Your task to perform on an android device: toggle show notifications on the lock screen Image 0: 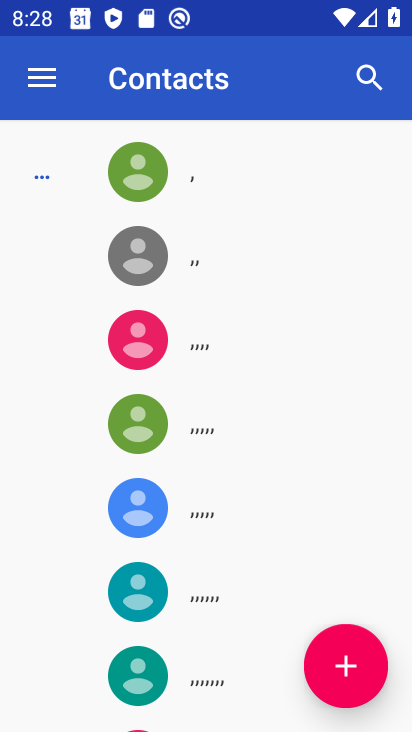
Step 0: press back button
Your task to perform on an android device: toggle show notifications on the lock screen Image 1: 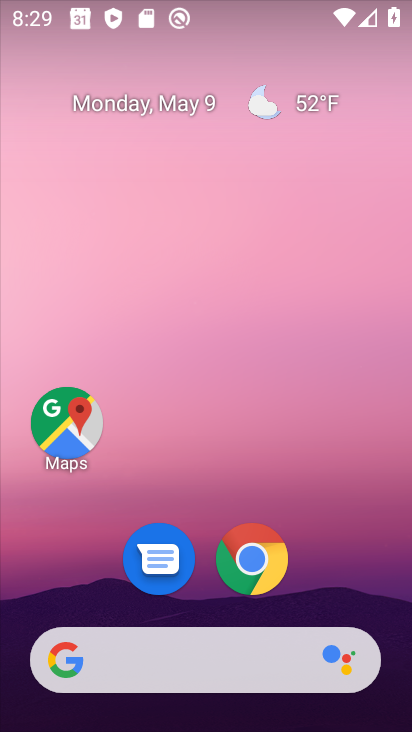
Step 1: drag from (179, 606) to (265, 90)
Your task to perform on an android device: toggle show notifications on the lock screen Image 2: 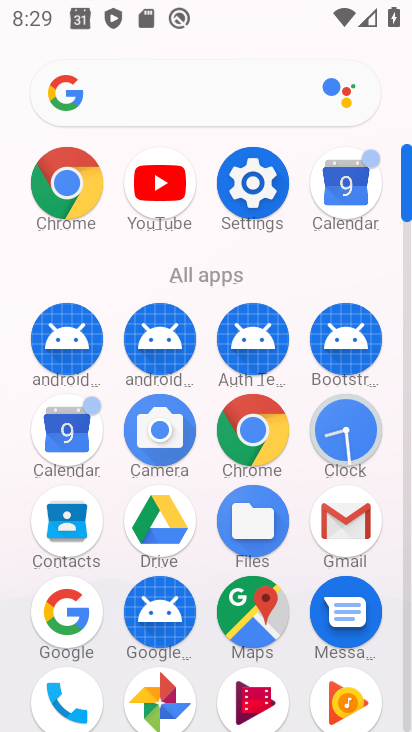
Step 2: click (257, 181)
Your task to perform on an android device: toggle show notifications on the lock screen Image 3: 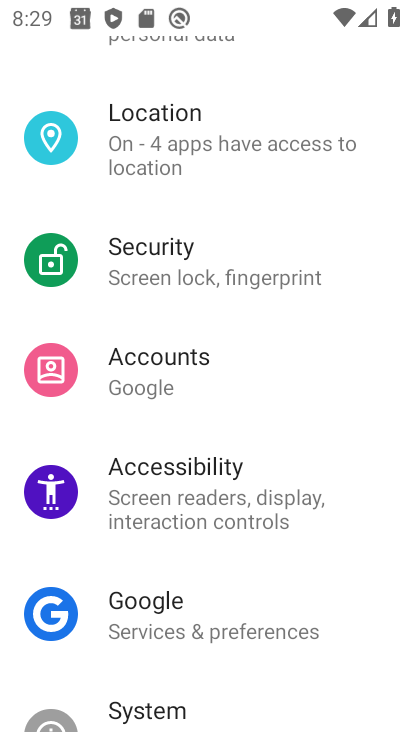
Step 3: drag from (236, 173) to (177, 621)
Your task to perform on an android device: toggle show notifications on the lock screen Image 4: 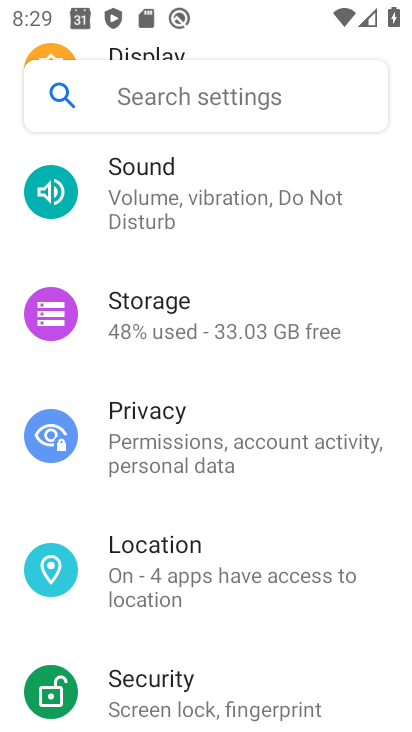
Step 4: drag from (236, 183) to (172, 685)
Your task to perform on an android device: toggle show notifications on the lock screen Image 5: 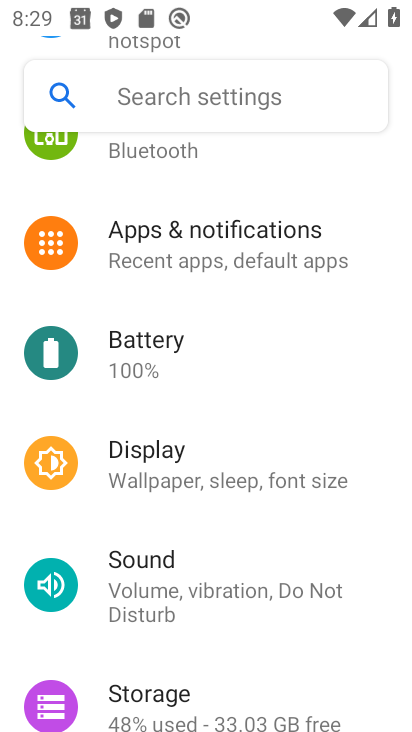
Step 5: click (197, 242)
Your task to perform on an android device: toggle show notifications on the lock screen Image 6: 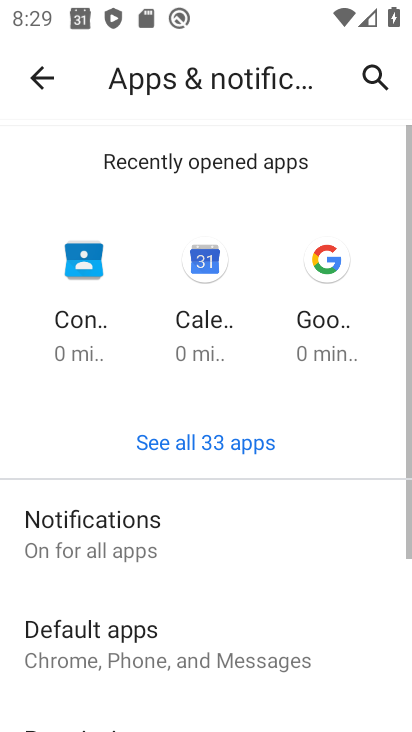
Step 6: click (120, 525)
Your task to perform on an android device: toggle show notifications on the lock screen Image 7: 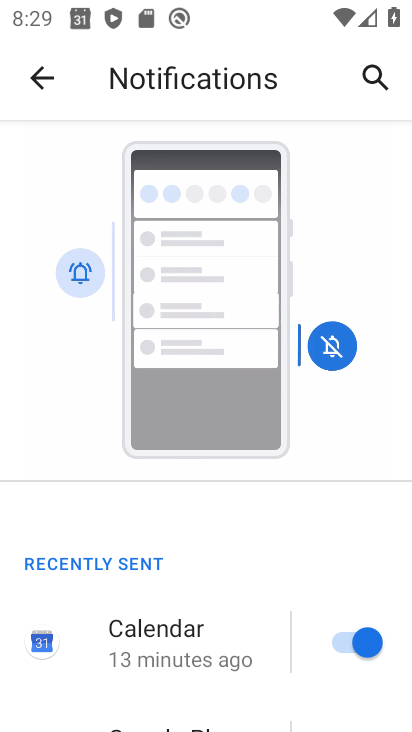
Step 7: drag from (164, 656) to (198, 256)
Your task to perform on an android device: toggle show notifications on the lock screen Image 8: 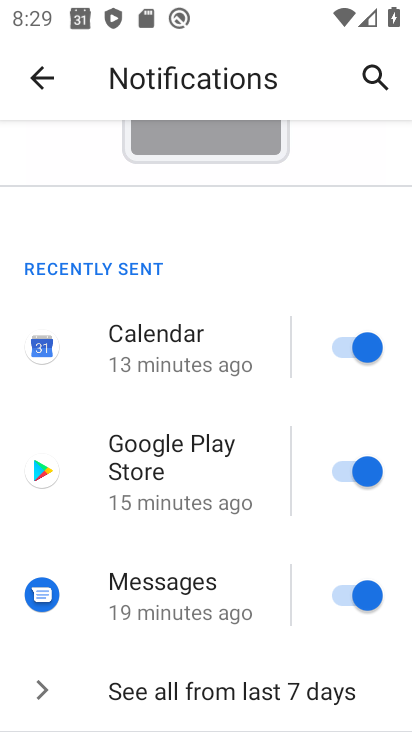
Step 8: drag from (191, 548) to (227, 212)
Your task to perform on an android device: toggle show notifications on the lock screen Image 9: 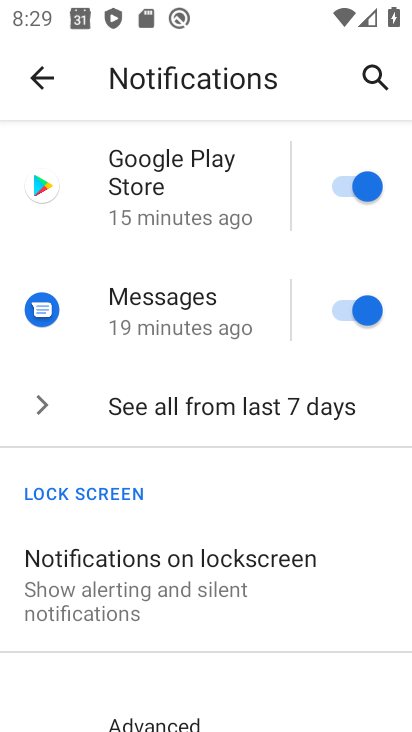
Step 9: click (132, 585)
Your task to perform on an android device: toggle show notifications on the lock screen Image 10: 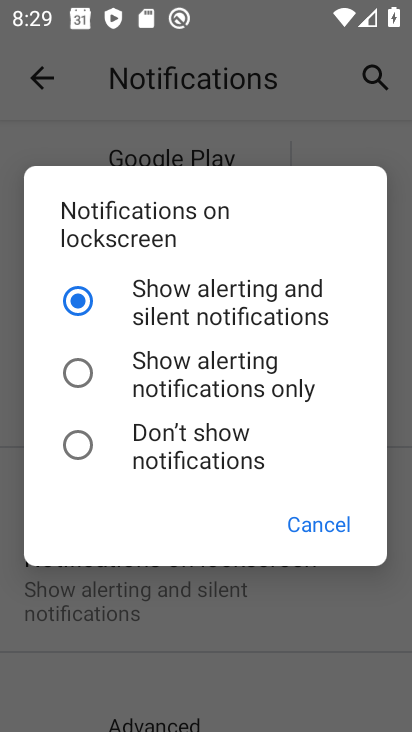
Step 10: click (70, 290)
Your task to perform on an android device: toggle show notifications on the lock screen Image 11: 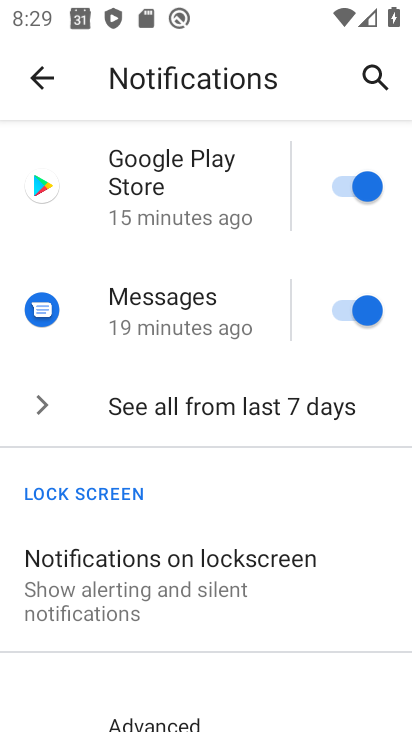
Step 11: task complete